Your task to perform on an android device: delete the emails in spam in the gmail app Image 0: 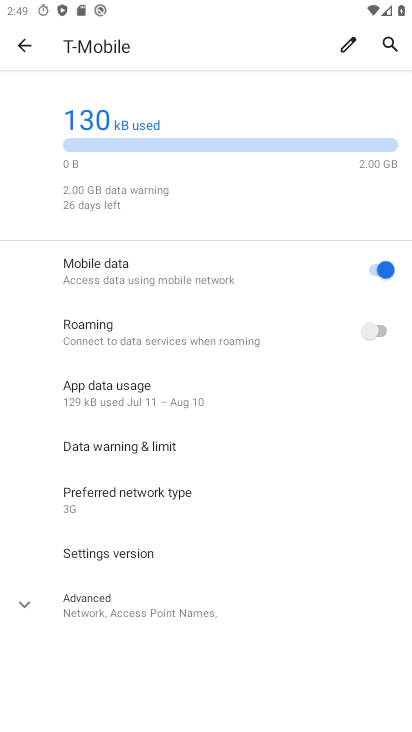
Step 0: press home button
Your task to perform on an android device: delete the emails in spam in the gmail app Image 1: 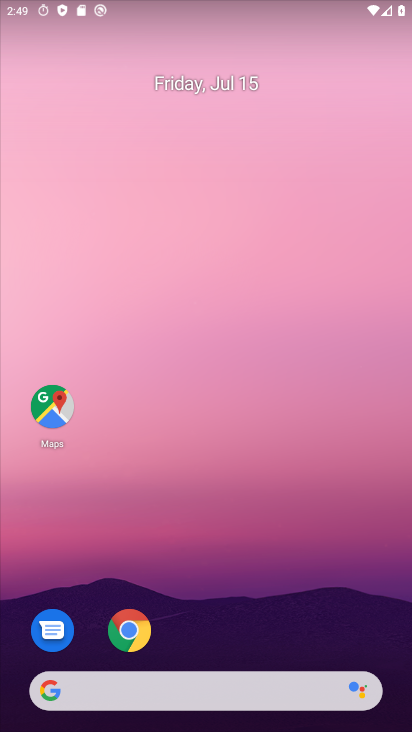
Step 1: drag from (321, 377) to (321, 10)
Your task to perform on an android device: delete the emails in spam in the gmail app Image 2: 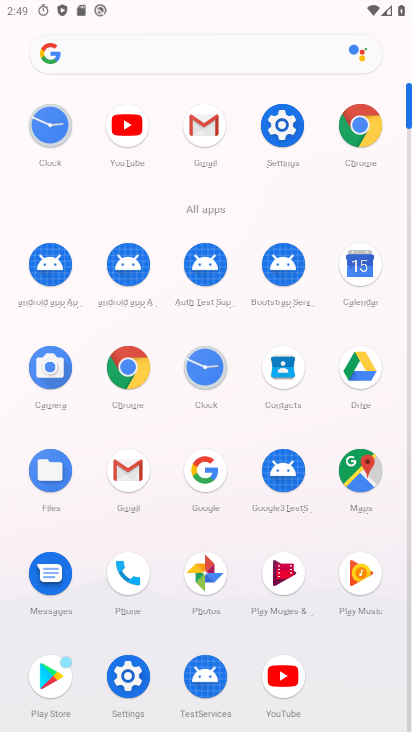
Step 2: click (208, 126)
Your task to perform on an android device: delete the emails in spam in the gmail app Image 3: 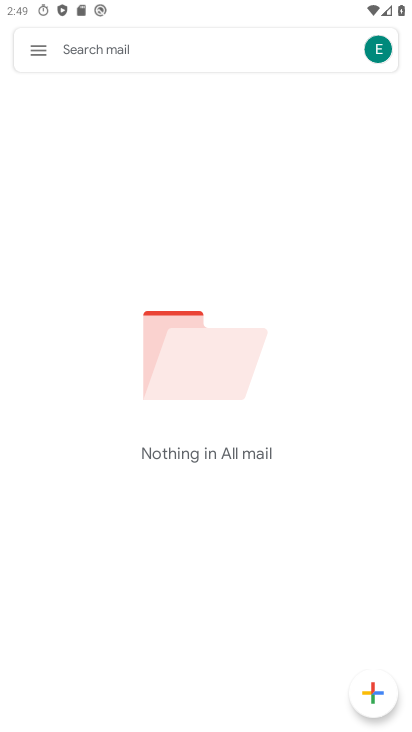
Step 3: click (23, 52)
Your task to perform on an android device: delete the emails in spam in the gmail app Image 4: 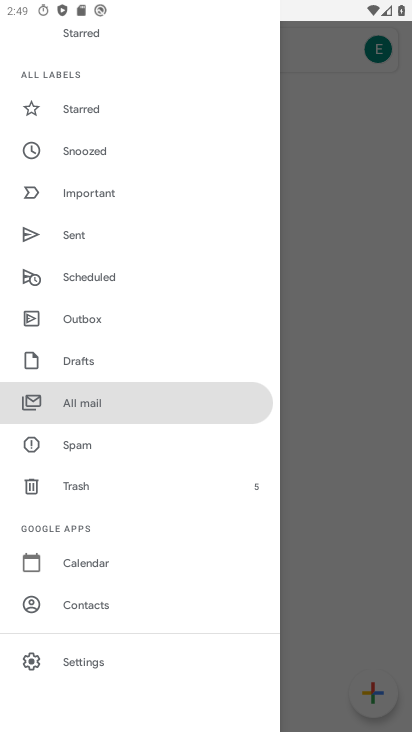
Step 4: click (86, 446)
Your task to perform on an android device: delete the emails in spam in the gmail app Image 5: 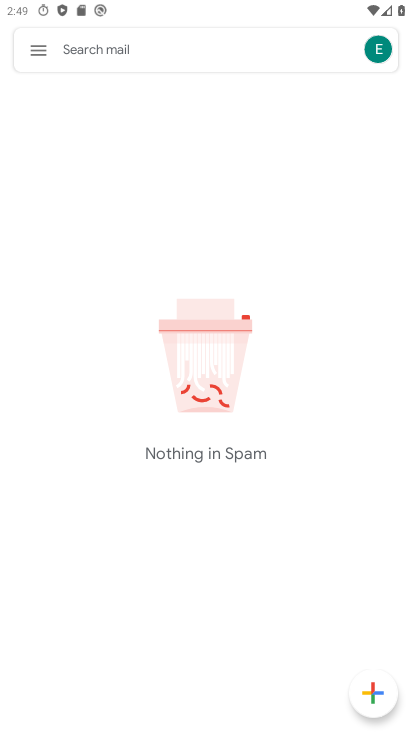
Step 5: task complete